Your task to perform on an android device: Open Youtube and go to the subscriptions tab Image 0: 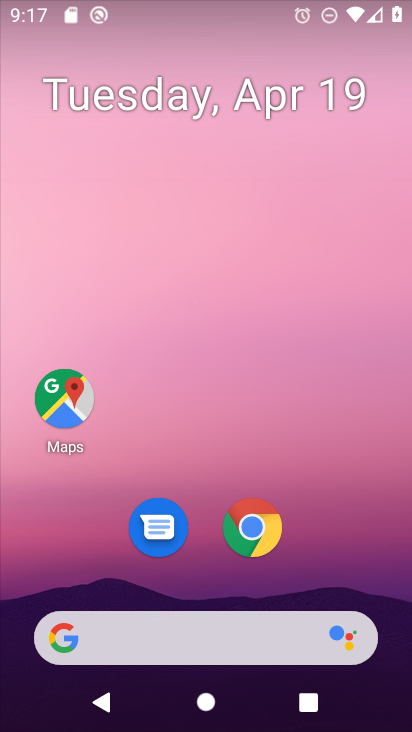
Step 0: drag from (314, 557) to (306, 166)
Your task to perform on an android device: Open Youtube and go to the subscriptions tab Image 1: 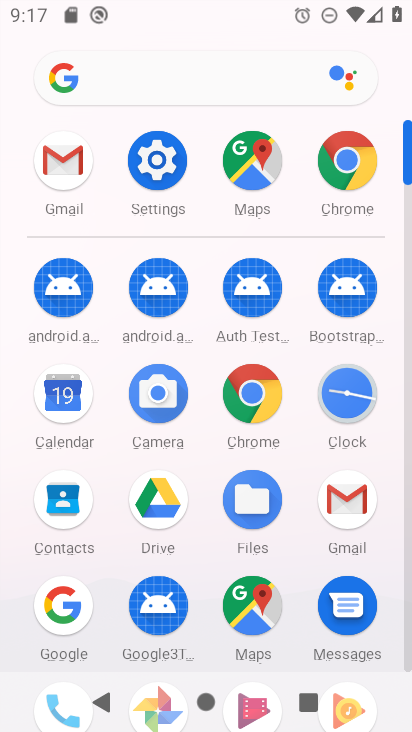
Step 1: drag from (286, 637) to (329, 187)
Your task to perform on an android device: Open Youtube and go to the subscriptions tab Image 2: 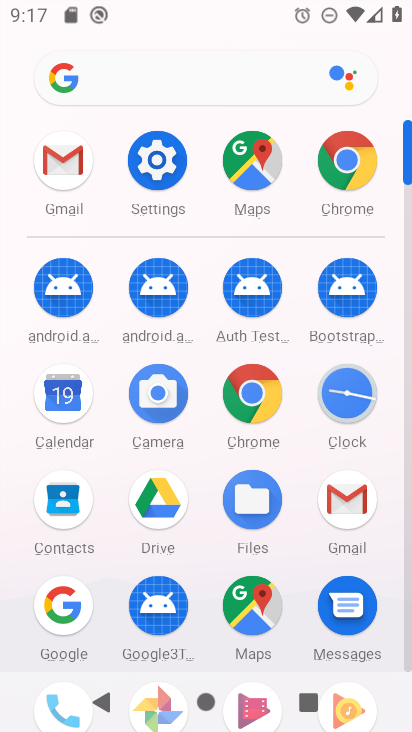
Step 2: drag from (366, 564) to (344, 193)
Your task to perform on an android device: Open Youtube and go to the subscriptions tab Image 3: 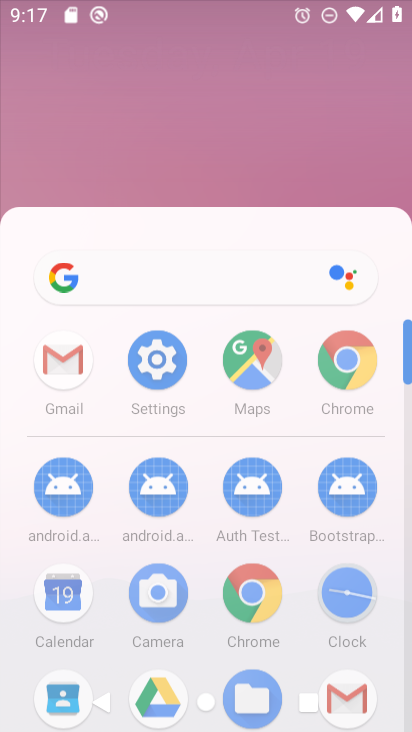
Step 3: drag from (192, 564) to (222, 201)
Your task to perform on an android device: Open Youtube and go to the subscriptions tab Image 4: 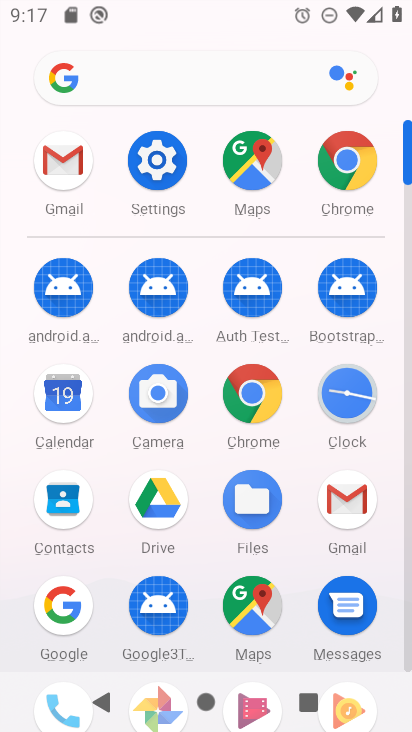
Step 4: drag from (303, 575) to (311, 160)
Your task to perform on an android device: Open Youtube and go to the subscriptions tab Image 5: 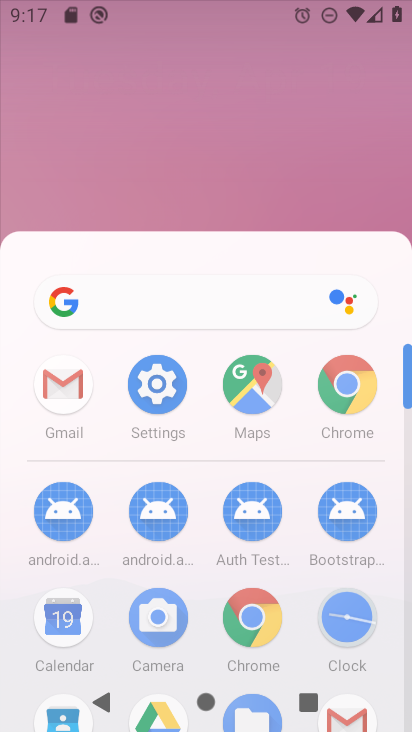
Step 5: drag from (385, 414) to (360, 384)
Your task to perform on an android device: Open Youtube and go to the subscriptions tab Image 6: 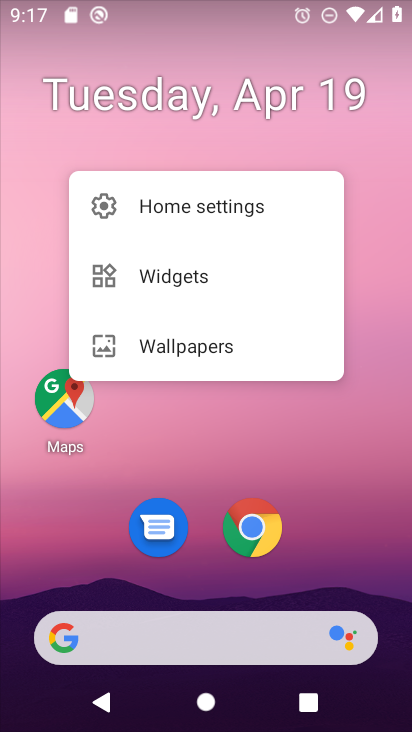
Step 6: drag from (198, 586) to (208, 300)
Your task to perform on an android device: Open Youtube and go to the subscriptions tab Image 7: 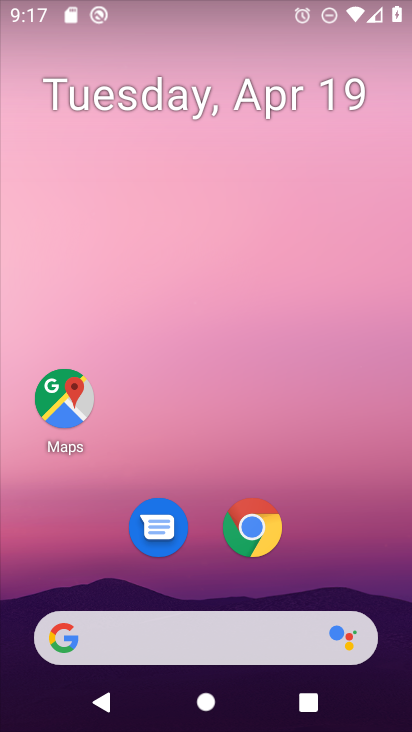
Step 7: drag from (212, 571) to (207, 181)
Your task to perform on an android device: Open Youtube and go to the subscriptions tab Image 8: 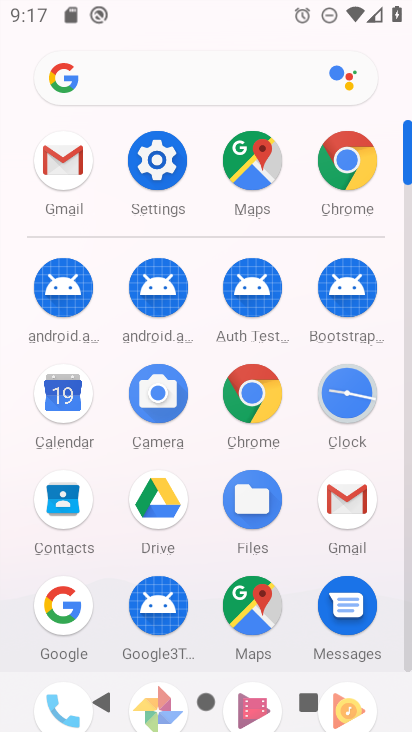
Step 8: drag from (195, 568) to (187, 171)
Your task to perform on an android device: Open Youtube and go to the subscriptions tab Image 9: 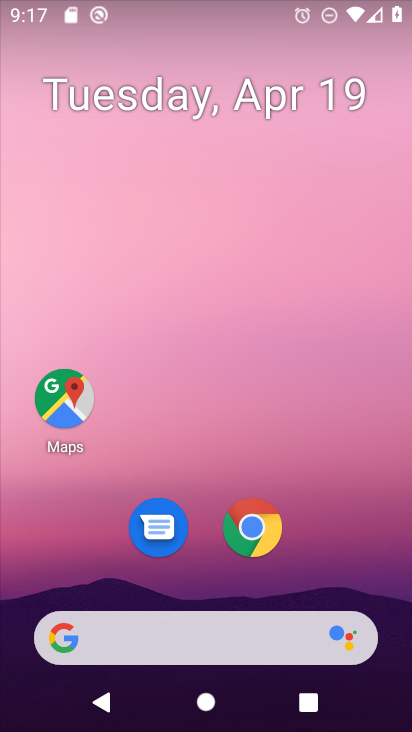
Step 9: drag from (257, 563) to (280, 232)
Your task to perform on an android device: Open Youtube and go to the subscriptions tab Image 10: 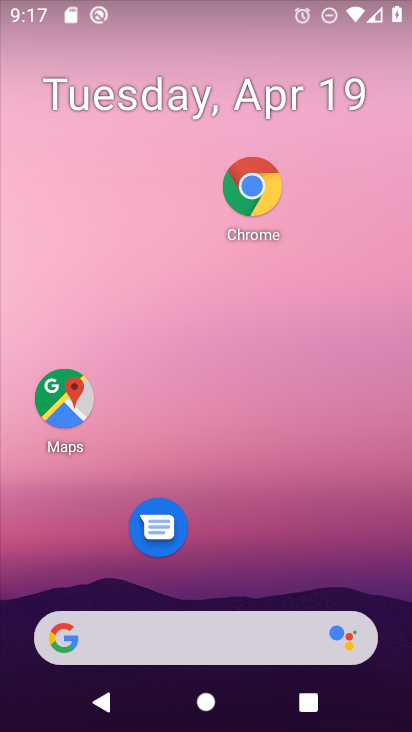
Step 10: drag from (218, 579) to (213, 211)
Your task to perform on an android device: Open Youtube and go to the subscriptions tab Image 11: 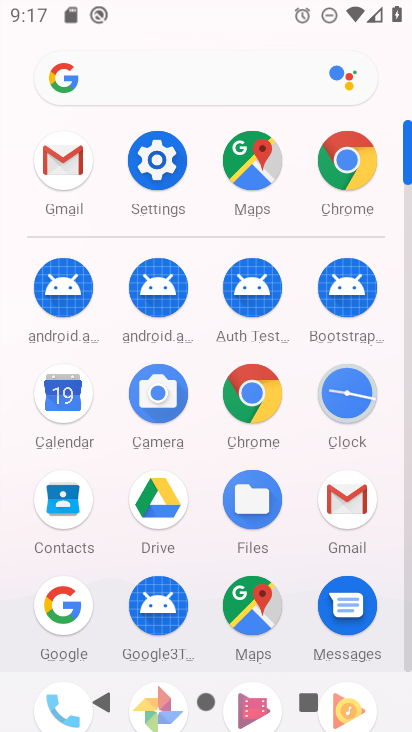
Step 11: drag from (275, 668) to (297, 204)
Your task to perform on an android device: Open Youtube and go to the subscriptions tab Image 12: 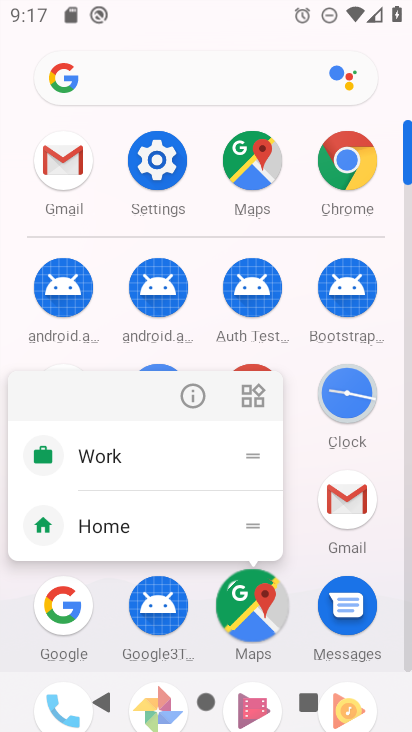
Step 12: drag from (302, 482) to (303, 216)
Your task to perform on an android device: Open Youtube and go to the subscriptions tab Image 13: 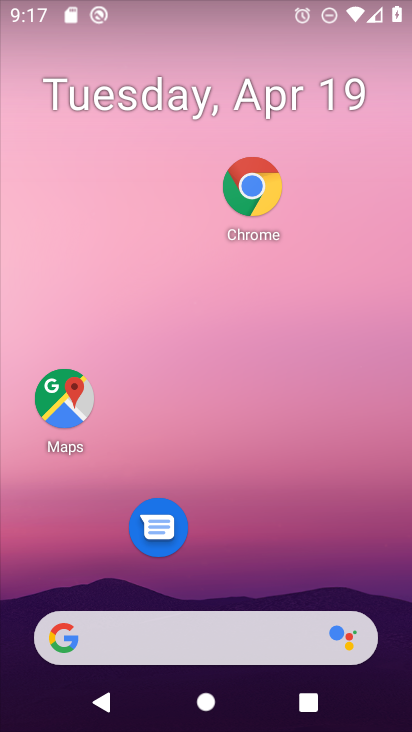
Step 13: drag from (220, 591) to (256, 284)
Your task to perform on an android device: Open Youtube and go to the subscriptions tab Image 14: 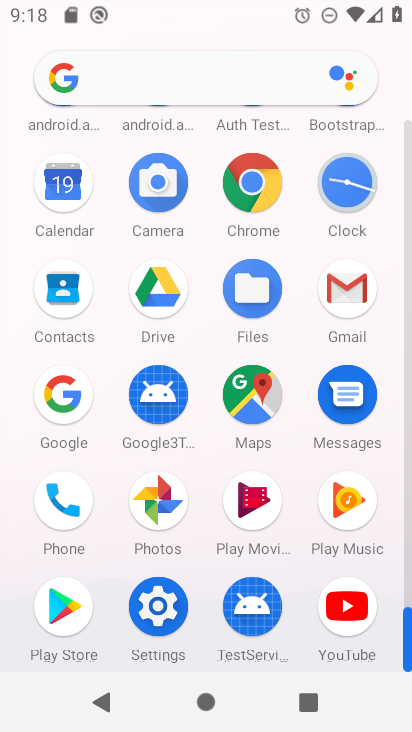
Step 14: click (335, 607)
Your task to perform on an android device: Open Youtube and go to the subscriptions tab Image 15: 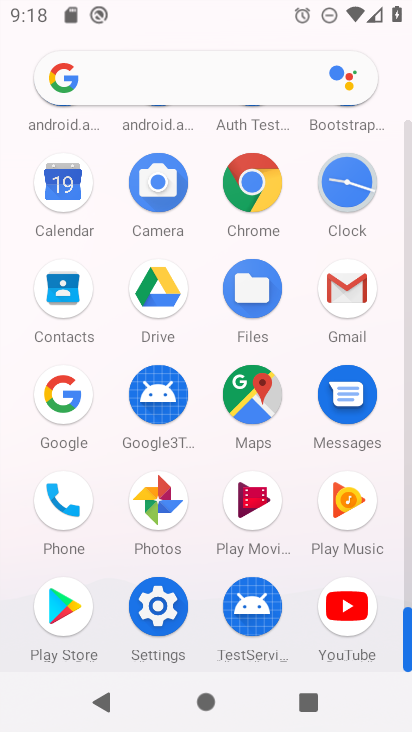
Step 15: click (335, 607)
Your task to perform on an android device: Open Youtube and go to the subscriptions tab Image 16: 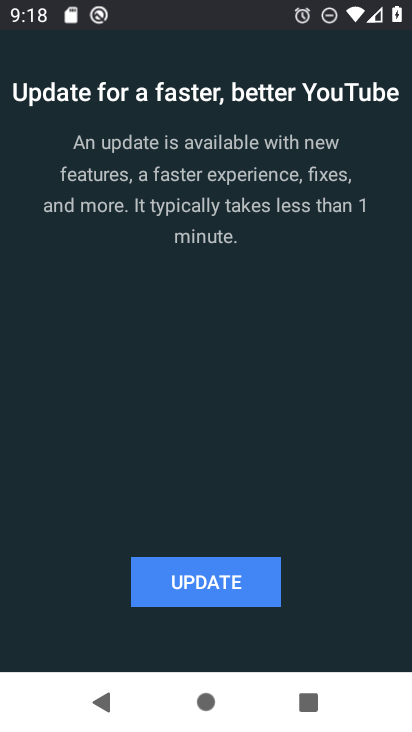
Step 16: click (212, 574)
Your task to perform on an android device: Open Youtube and go to the subscriptions tab Image 17: 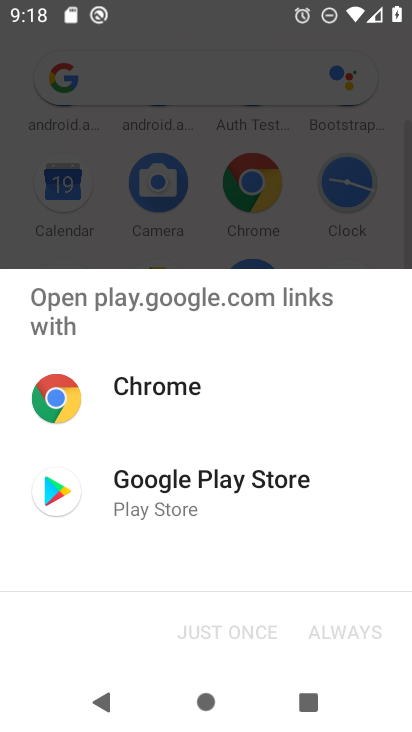
Step 17: press back button
Your task to perform on an android device: Open Youtube and go to the subscriptions tab Image 18: 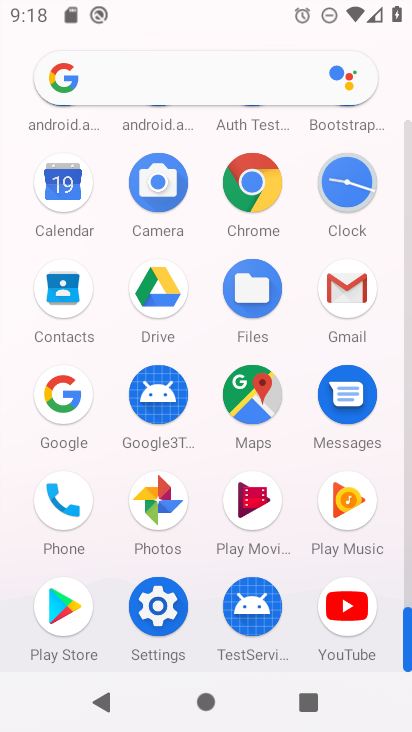
Step 18: click (346, 602)
Your task to perform on an android device: Open Youtube and go to the subscriptions tab Image 19: 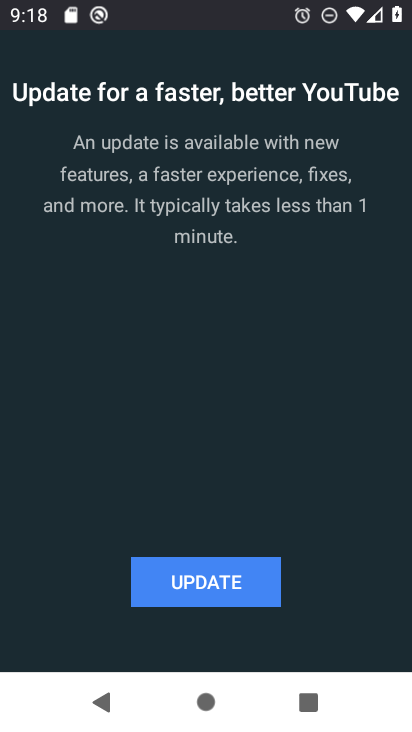
Step 19: task complete